Your task to perform on an android device: Go to calendar. Show me events next week Image 0: 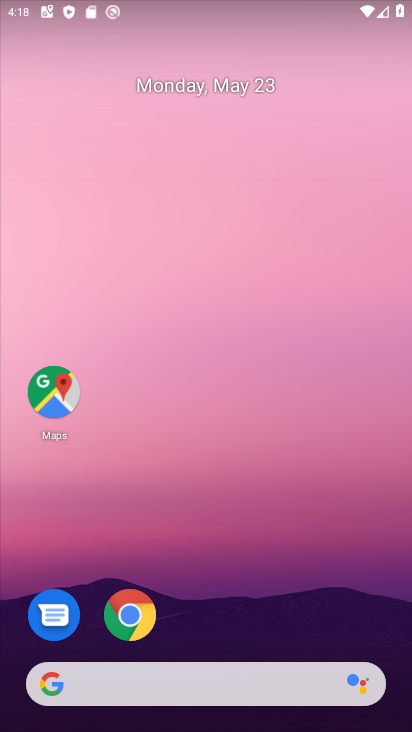
Step 0: press back button
Your task to perform on an android device: Go to calendar. Show me events next week Image 1: 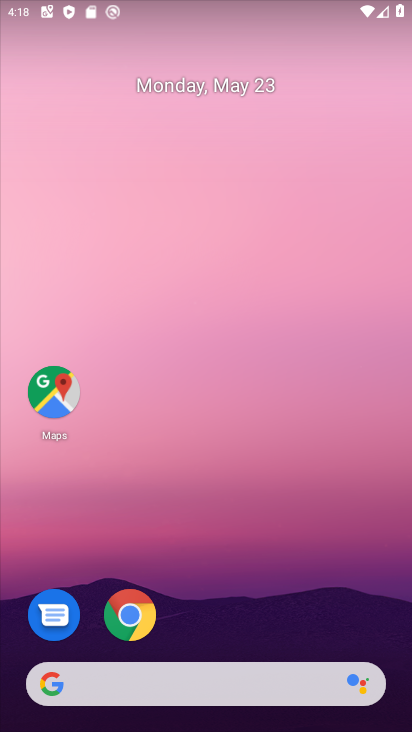
Step 1: drag from (226, 577) to (307, 9)
Your task to perform on an android device: Go to calendar. Show me events next week Image 2: 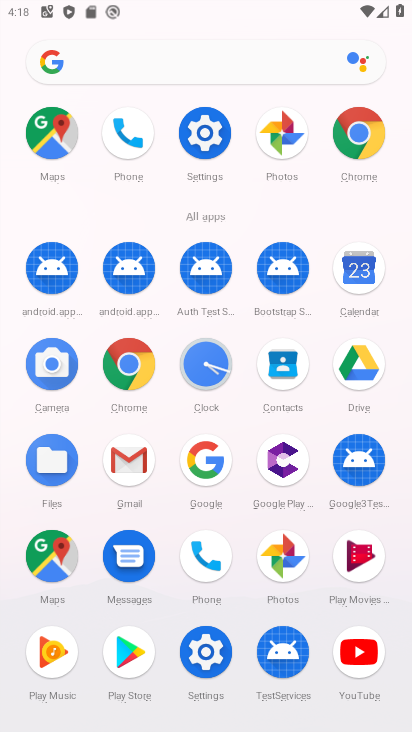
Step 2: click (342, 259)
Your task to perform on an android device: Go to calendar. Show me events next week Image 3: 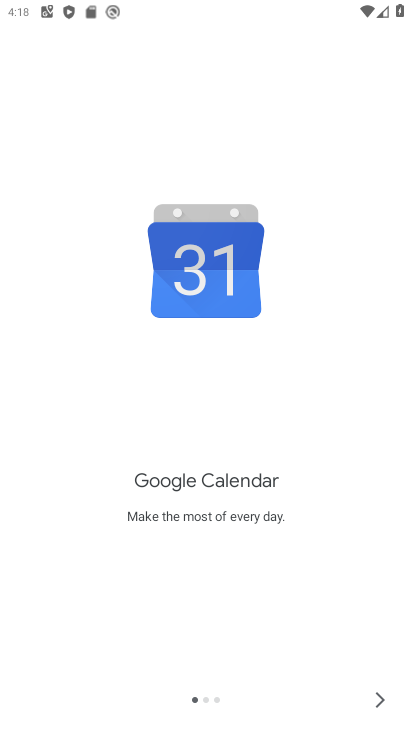
Step 3: click (375, 691)
Your task to perform on an android device: Go to calendar. Show me events next week Image 4: 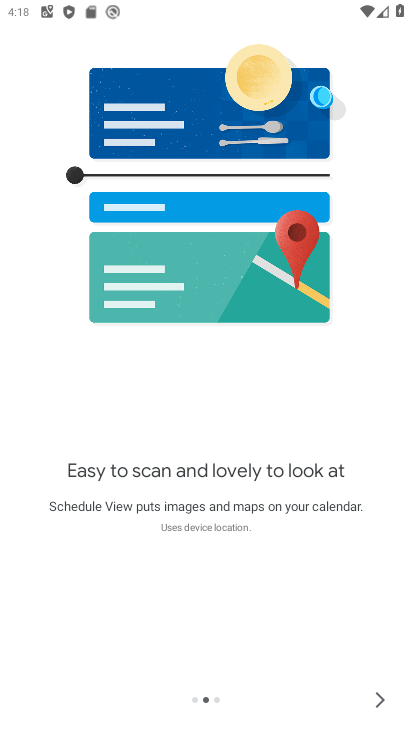
Step 4: click (377, 689)
Your task to perform on an android device: Go to calendar. Show me events next week Image 5: 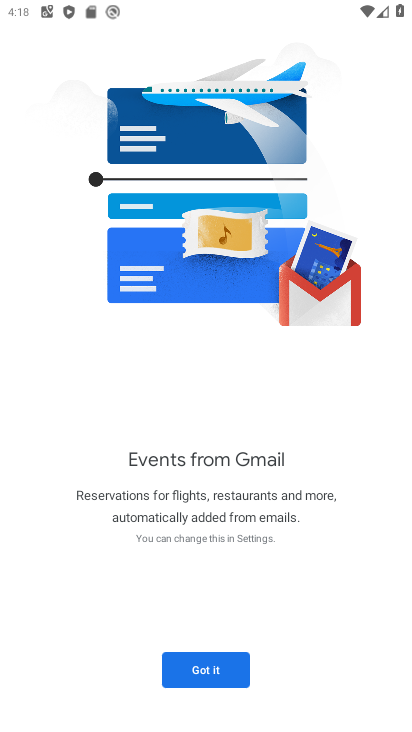
Step 5: click (219, 662)
Your task to perform on an android device: Go to calendar. Show me events next week Image 6: 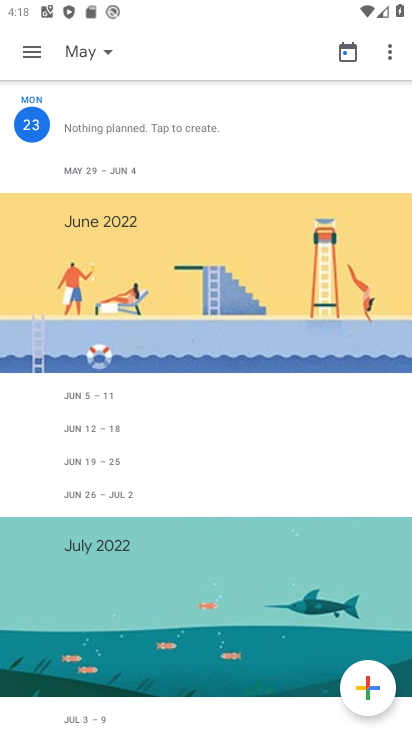
Step 6: click (94, 47)
Your task to perform on an android device: Go to calendar. Show me events next week Image 7: 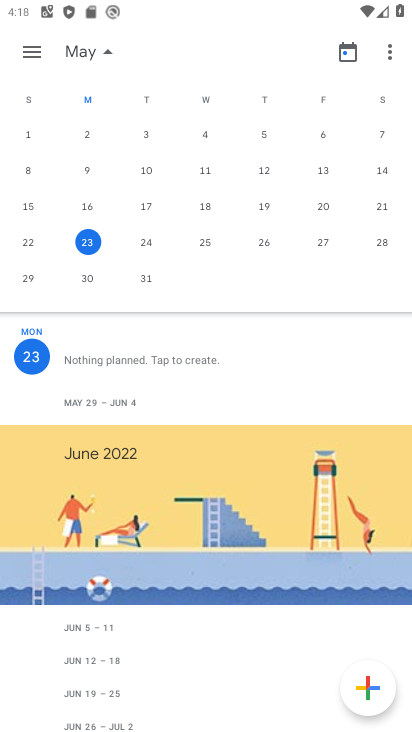
Step 7: click (82, 277)
Your task to perform on an android device: Go to calendar. Show me events next week Image 8: 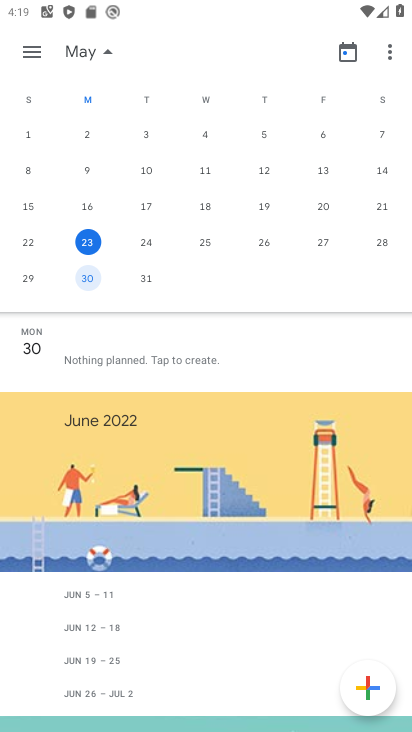
Step 8: click (23, 54)
Your task to perform on an android device: Go to calendar. Show me events next week Image 9: 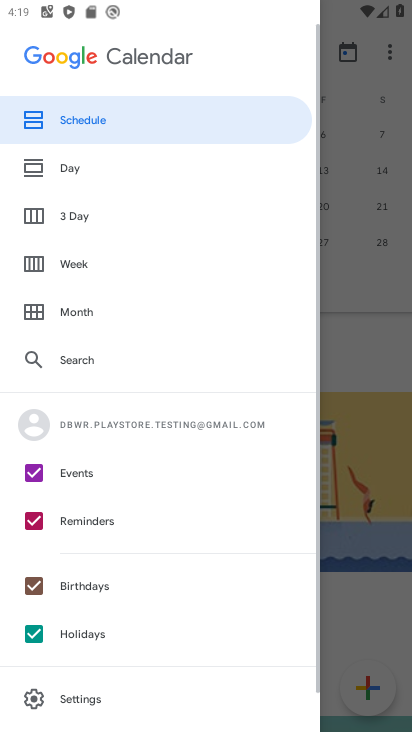
Step 9: click (115, 123)
Your task to perform on an android device: Go to calendar. Show me events next week Image 10: 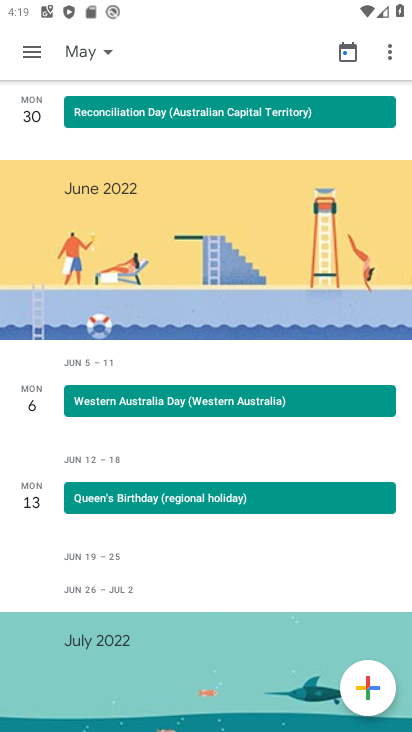
Step 10: click (26, 43)
Your task to perform on an android device: Go to calendar. Show me events next week Image 11: 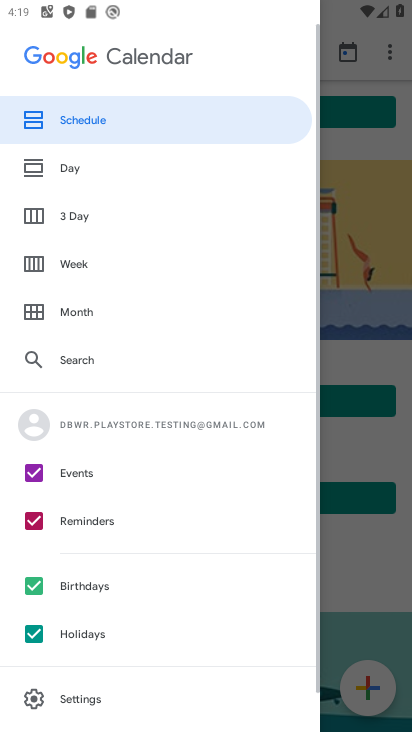
Step 11: click (119, 118)
Your task to perform on an android device: Go to calendar. Show me events next week Image 12: 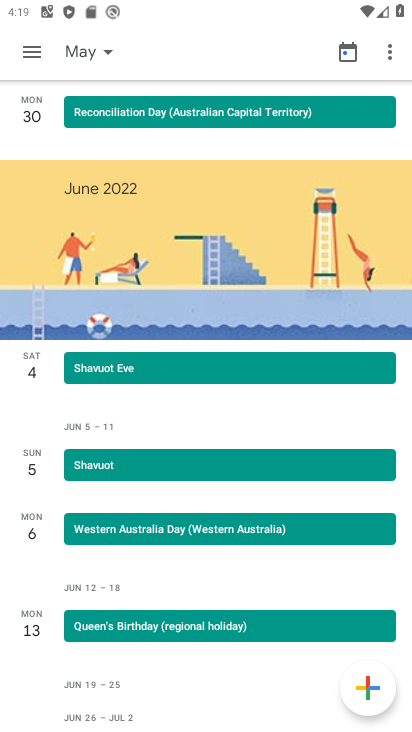
Step 12: click (87, 115)
Your task to perform on an android device: Go to calendar. Show me events next week Image 13: 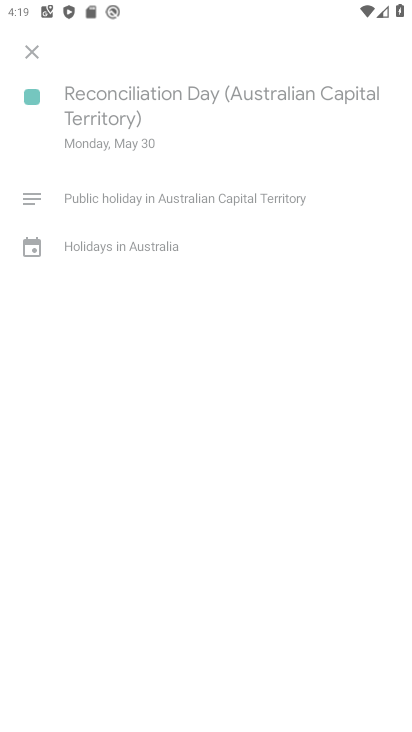
Step 13: task complete